Your task to perform on an android device: Open battery settings Image 0: 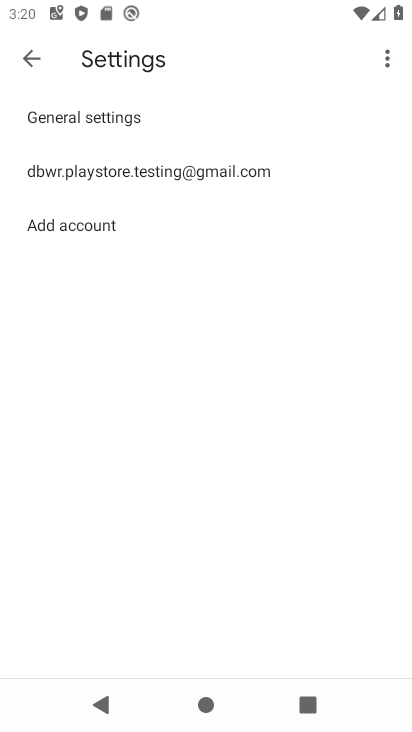
Step 0: press home button
Your task to perform on an android device: Open battery settings Image 1: 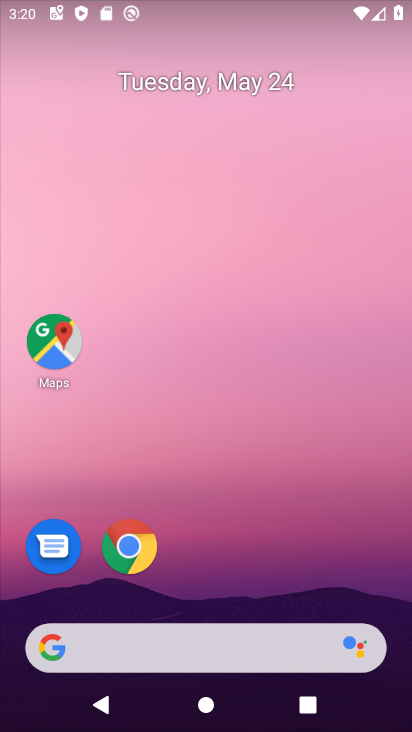
Step 1: drag from (302, 458) to (246, 39)
Your task to perform on an android device: Open battery settings Image 2: 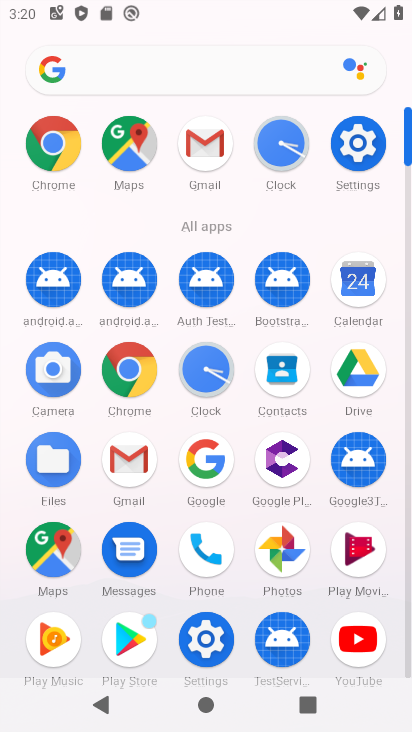
Step 2: click (356, 140)
Your task to perform on an android device: Open battery settings Image 3: 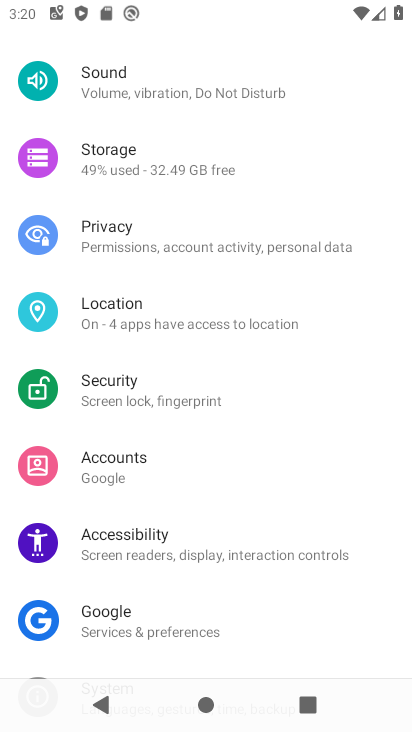
Step 3: drag from (236, 204) to (159, 693)
Your task to perform on an android device: Open battery settings Image 4: 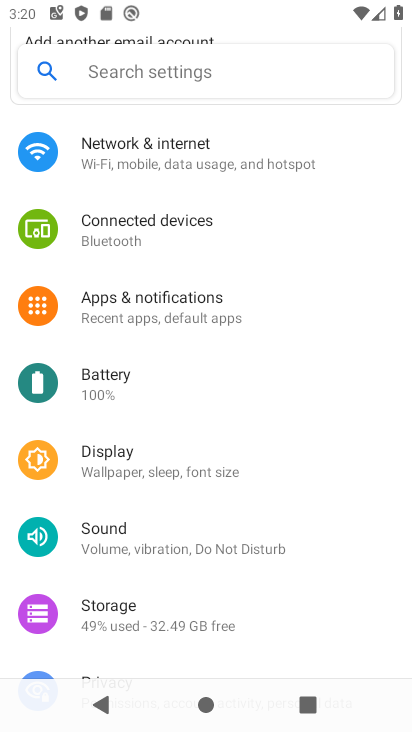
Step 4: click (187, 387)
Your task to perform on an android device: Open battery settings Image 5: 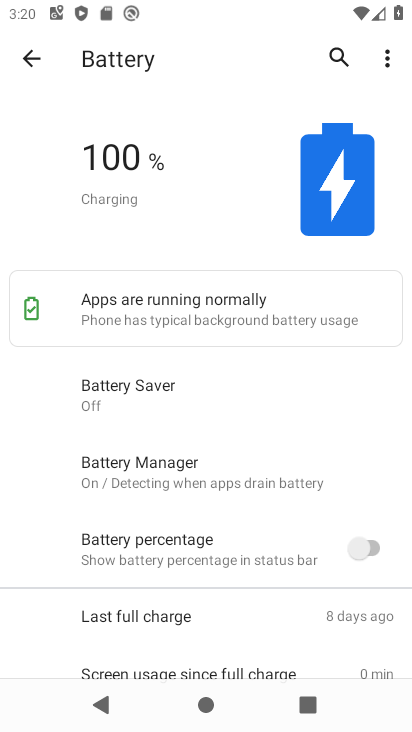
Step 5: task complete